Your task to perform on an android device: What's the weather going to be this weekend? Image 0: 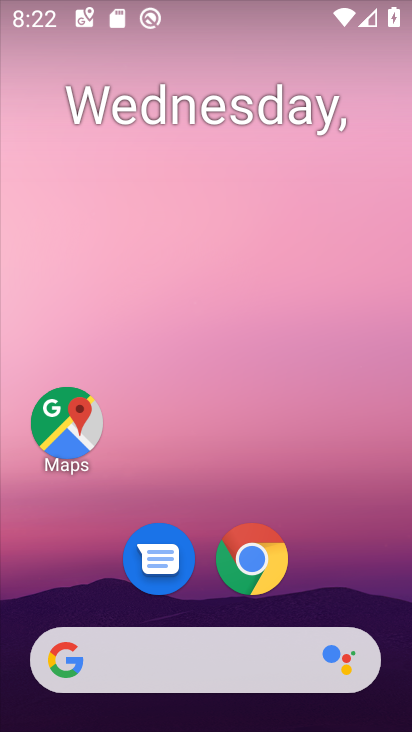
Step 0: click (252, 560)
Your task to perform on an android device: What's the weather going to be this weekend? Image 1: 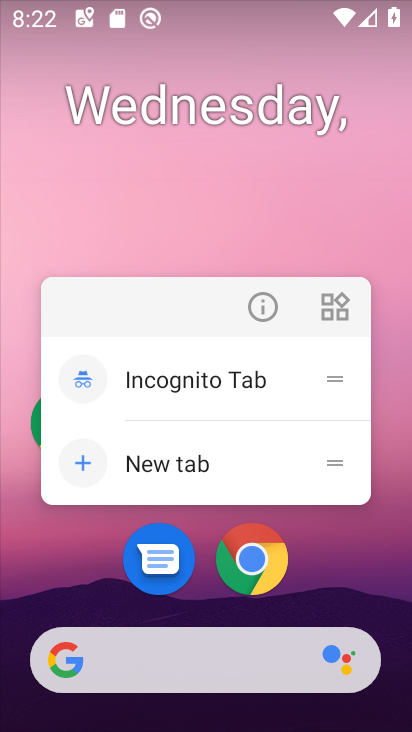
Step 1: click (273, 561)
Your task to perform on an android device: What's the weather going to be this weekend? Image 2: 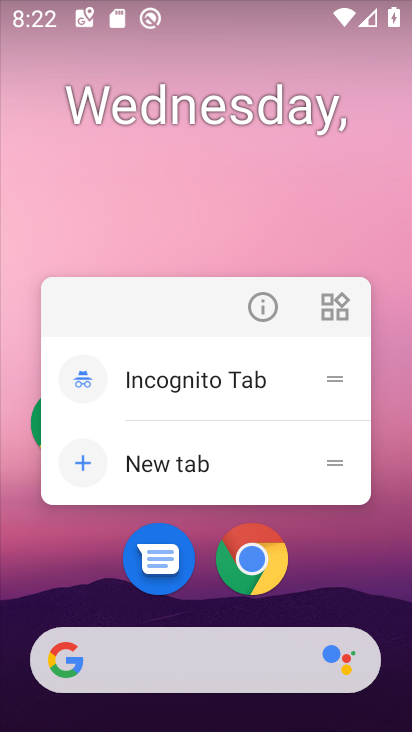
Step 2: drag from (363, 528) to (377, 190)
Your task to perform on an android device: What's the weather going to be this weekend? Image 3: 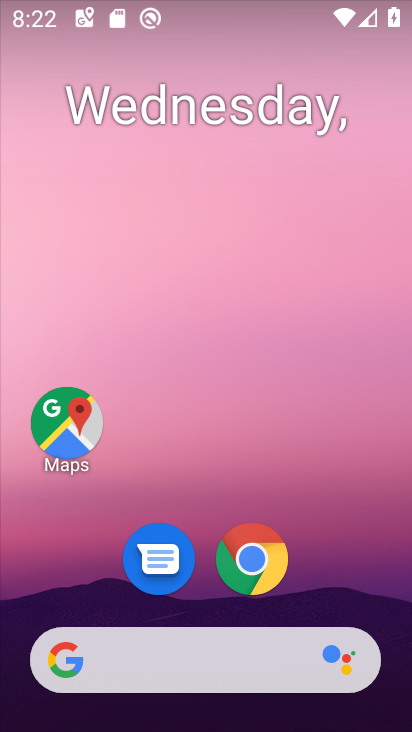
Step 3: drag from (380, 516) to (359, 154)
Your task to perform on an android device: What's the weather going to be this weekend? Image 4: 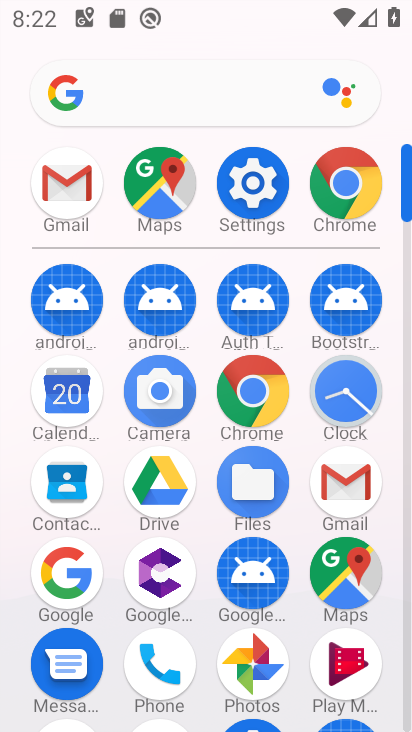
Step 4: click (239, 376)
Your task to perform on an android device: What's the weather going to be this weekend? Image 5: 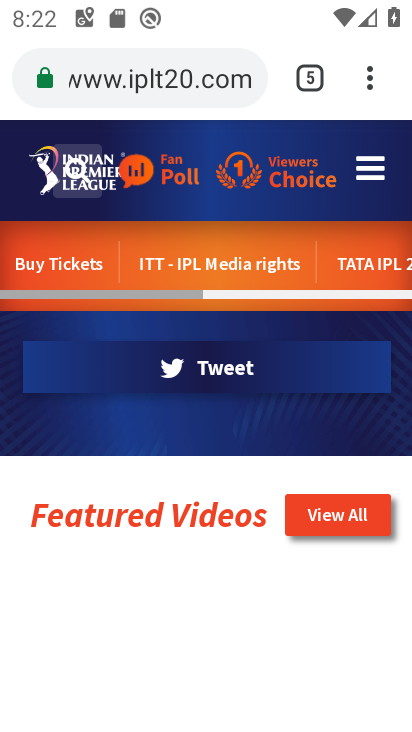
Step 5: click (172, 68)
Your task to perform on an android device: What's the weather going to be this weekend? Image 6: 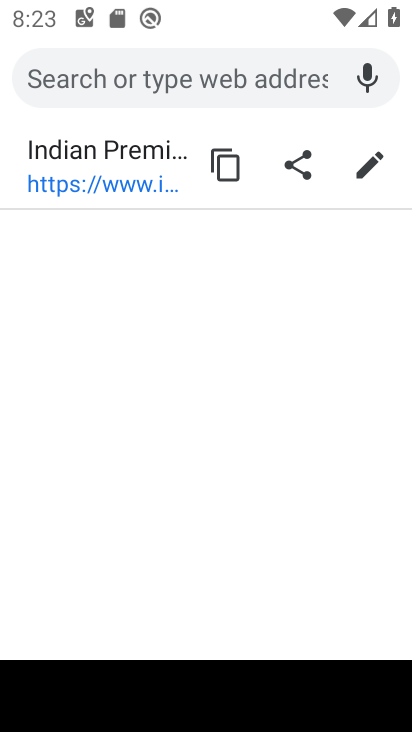
Step 6: type "what's the weather going to be this weekend"
Your task to perform on an android device: What's the weather going to be this weekend? Image 7: 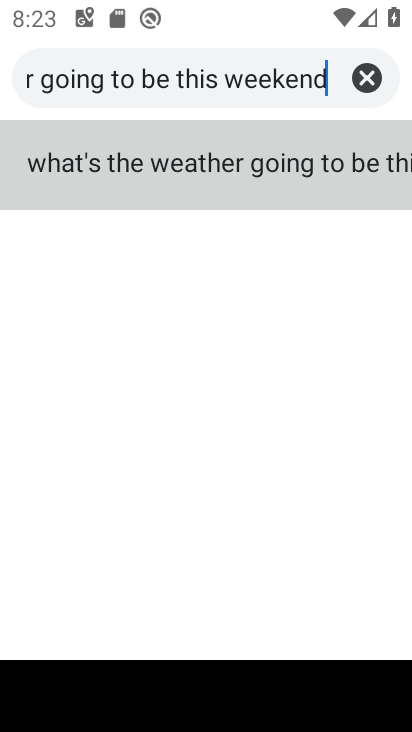
Step 7: click (174, 185)
Your task to perform on an android device: What's the weather going to be this weekend? Image 8: 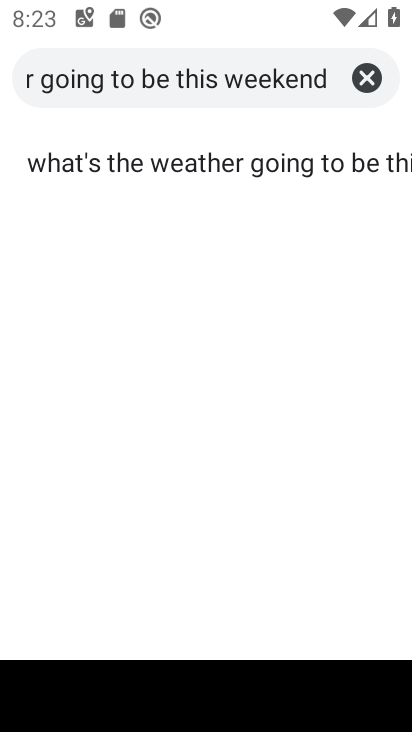
Step 8: click (183, 174)
Your task to perform on an android device: What's the weather going to be this weekend? Image 9: 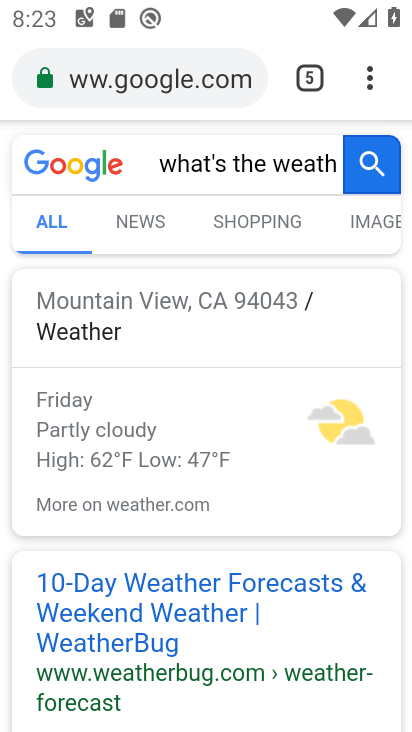
Step 9: drag from (249, 559) to (173, 302)
Your task to perform on an android device: What's the weather going to be this weekend? Image 10: 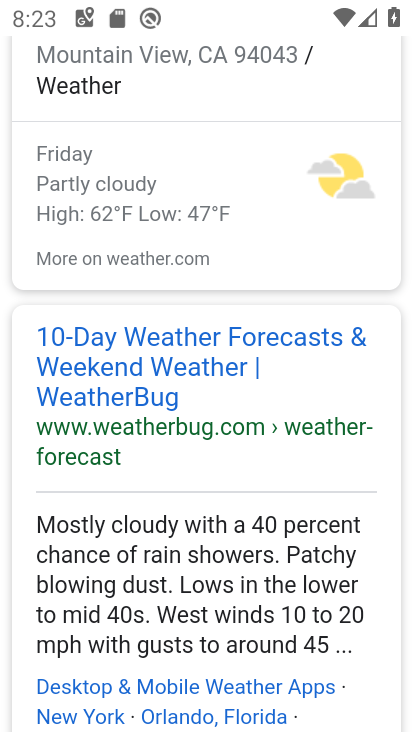
Step 10: click (152, 338)
Your task to perform on an android device: What's the weather going to be this weekend? Image 11: 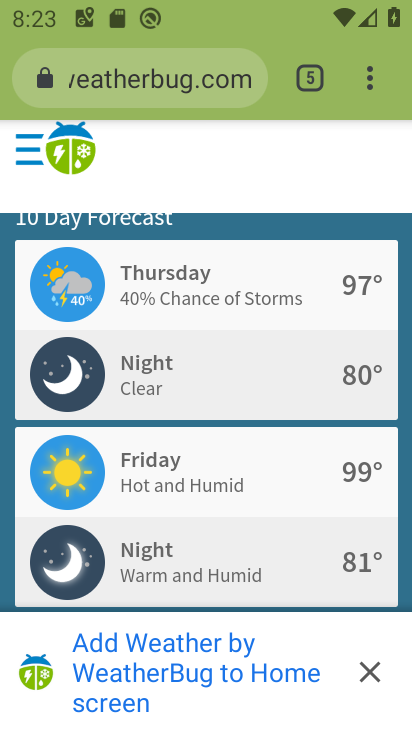
Step 11: task complete